Your task to perform on an android device: Go to privacy settings Image 0: 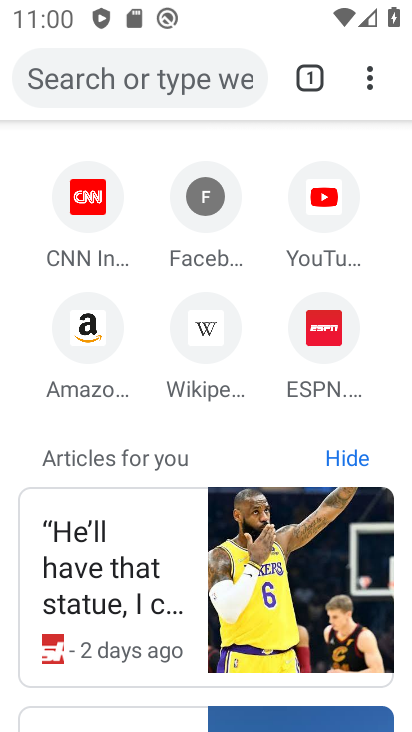
Step 0: press home button
Your task to perform on an android device: Go to privacy settings Image 1: 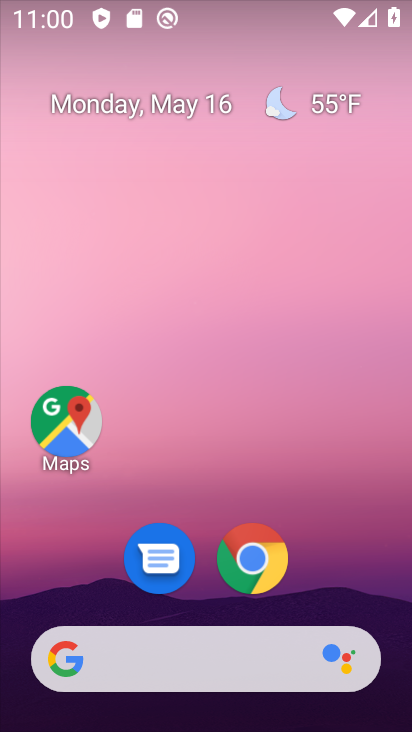
Step 1: click (252, 561)
Your task to perform on an android device: Go to privacy settings Image 2: 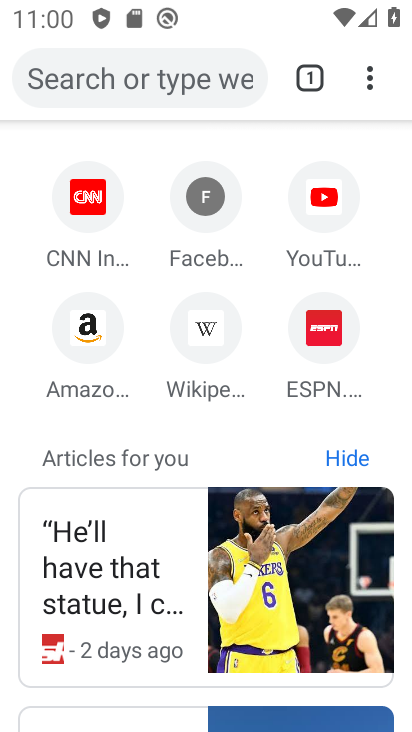
Step 2: click (362, 79)
Your task to perform on an android device: Go to privacy settings Image 3: 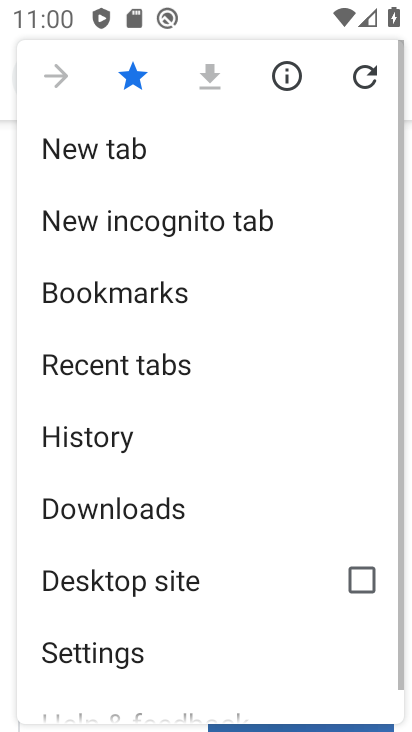
Step 3: click (93, 656)
Your task to perform on an android device: Go to privacy settings Image 4: 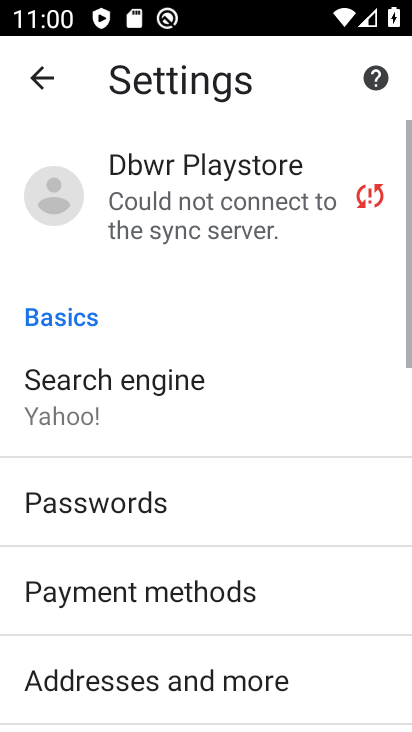
Step 4: drag from (257, 593) to (311, 3)
Your task to perform on an android device: Go to privacy settings Image 5: 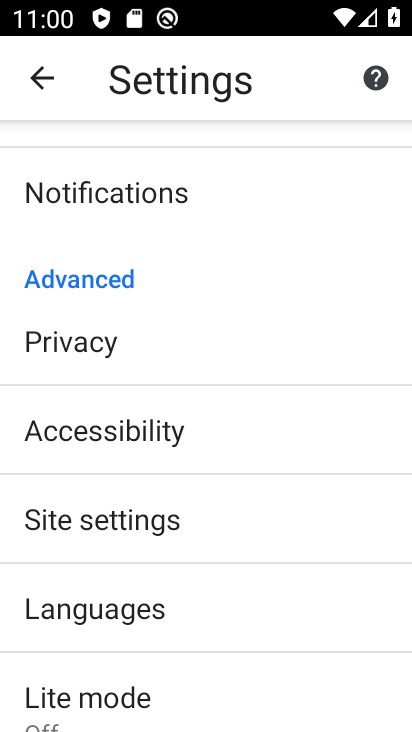
Step 5: click (78, 341)
Your task to perform on an android device: Go to privacy settings Image 6: 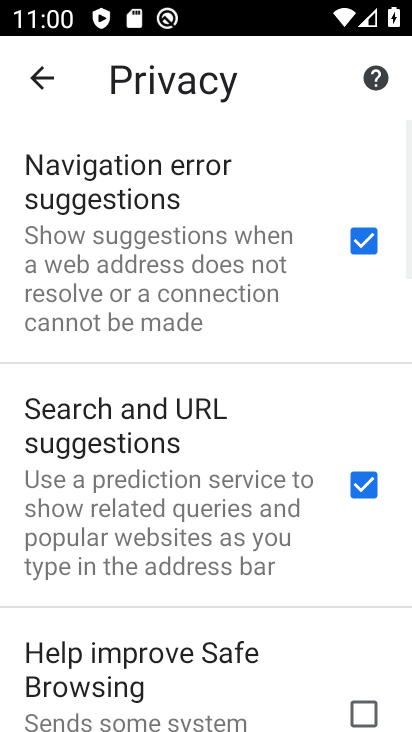
Step 6: task complete